Your task to perform on an android device: Open Yahoo.com Image 0: 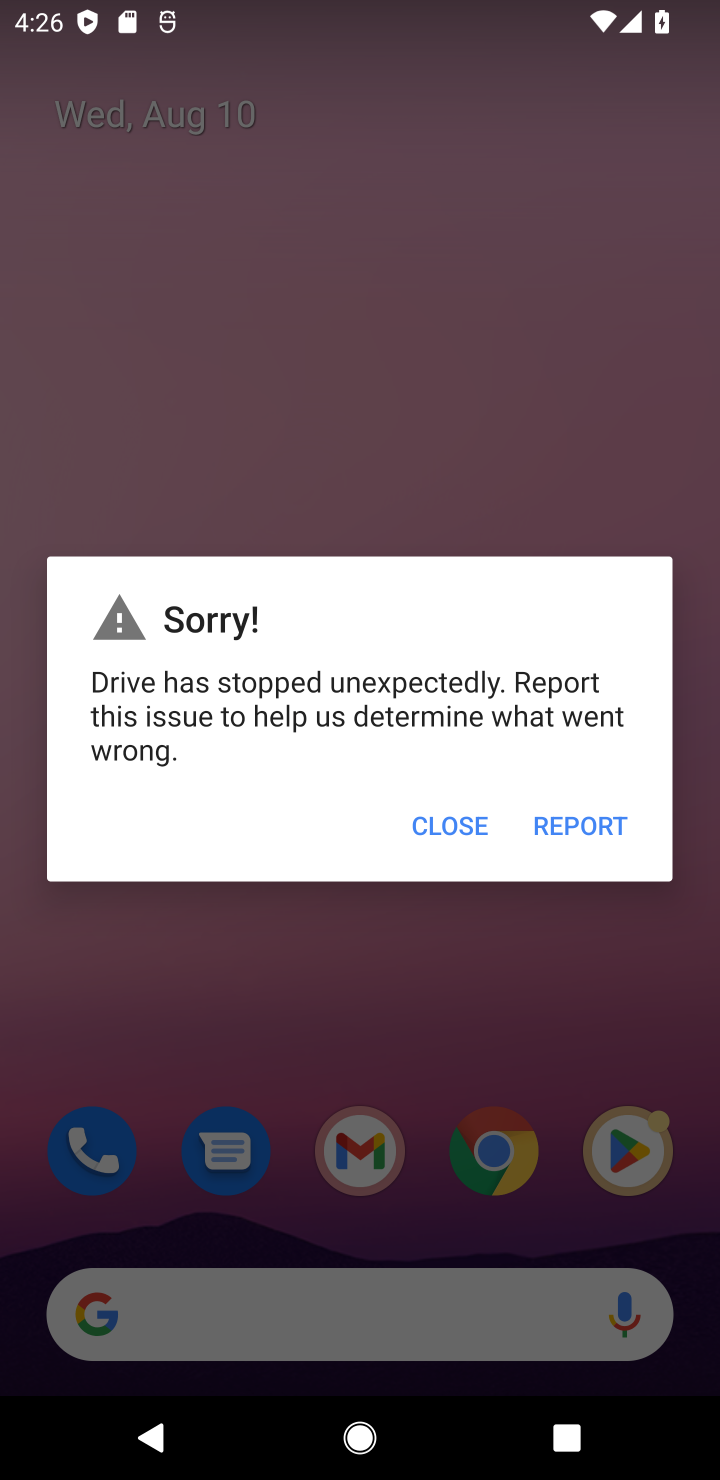
Step 0: click (462, 808)
Your task to perform on an android device: Open Yahoo.com Image 1: 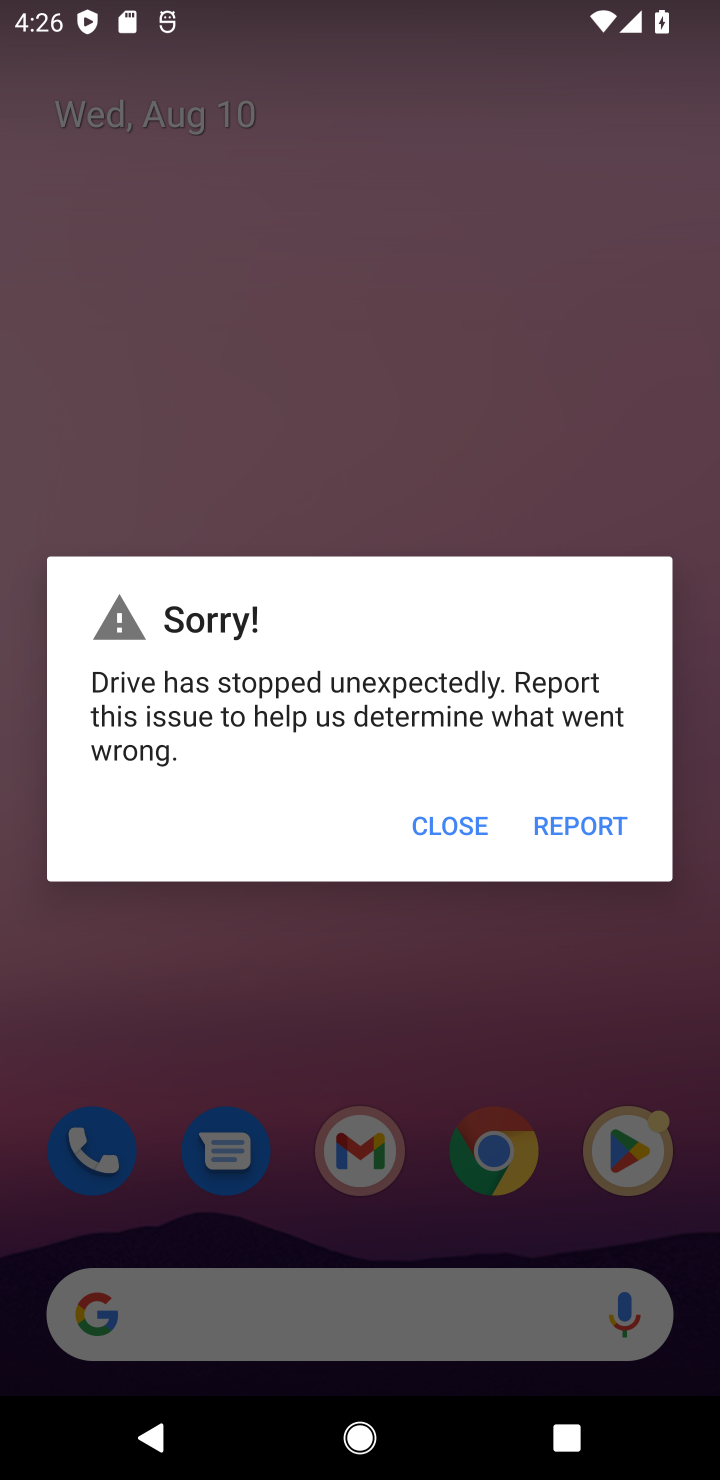
Step 1: click (462, 822)
Your task to perform on an android device: Open Yahoo.com Image 2: 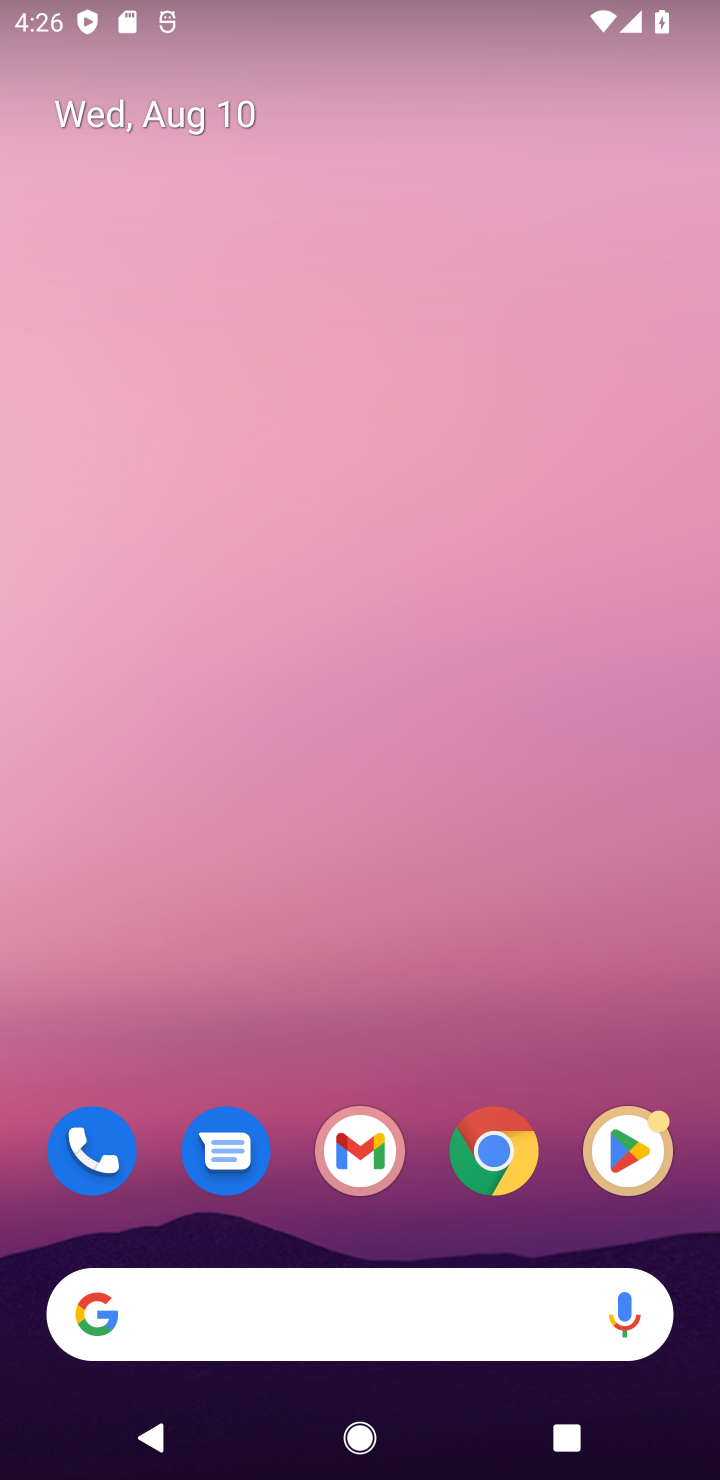
Step 2: click (415, 1322)
Your task to perform on an android device: Open Yahoo.com Image 3: 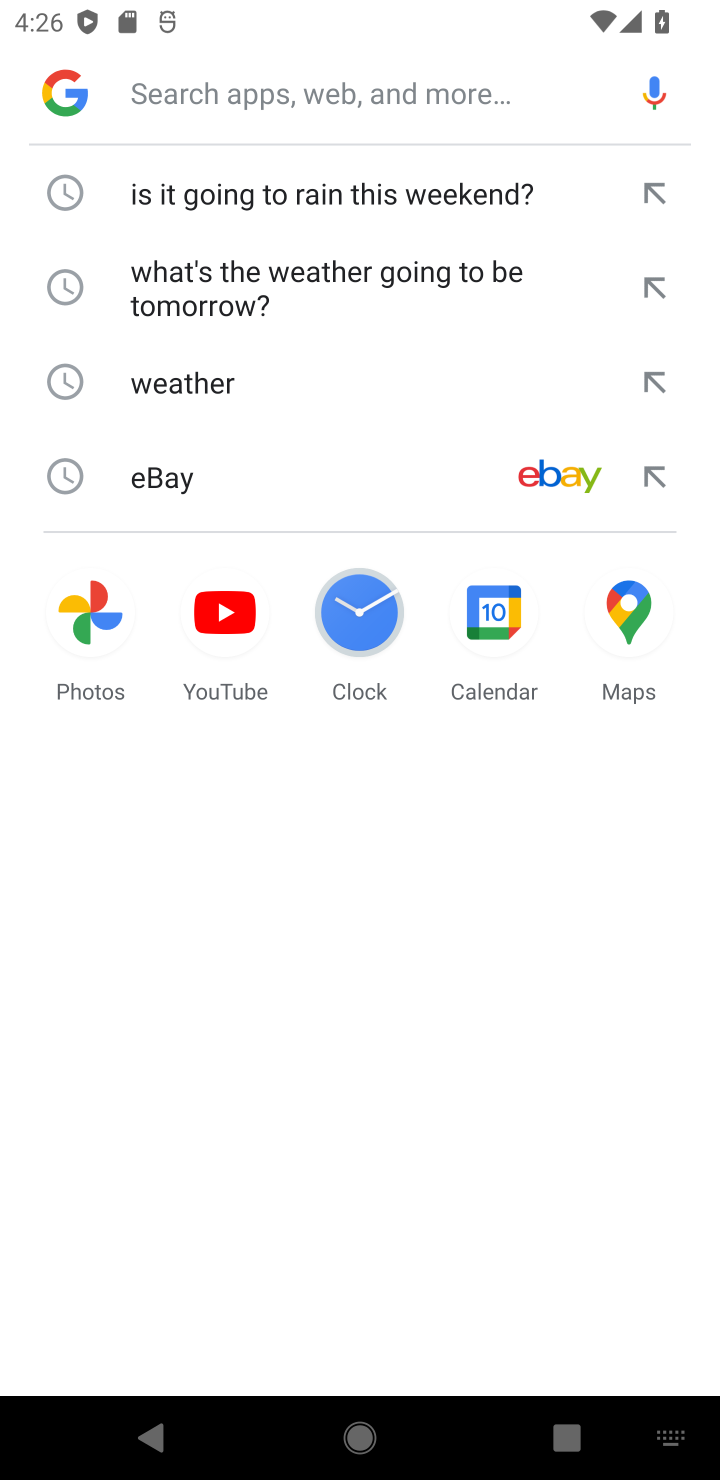
Step 3: type "Yahoo.com"
Your task to perform on an android device: Open Yahoo.com Image 4: 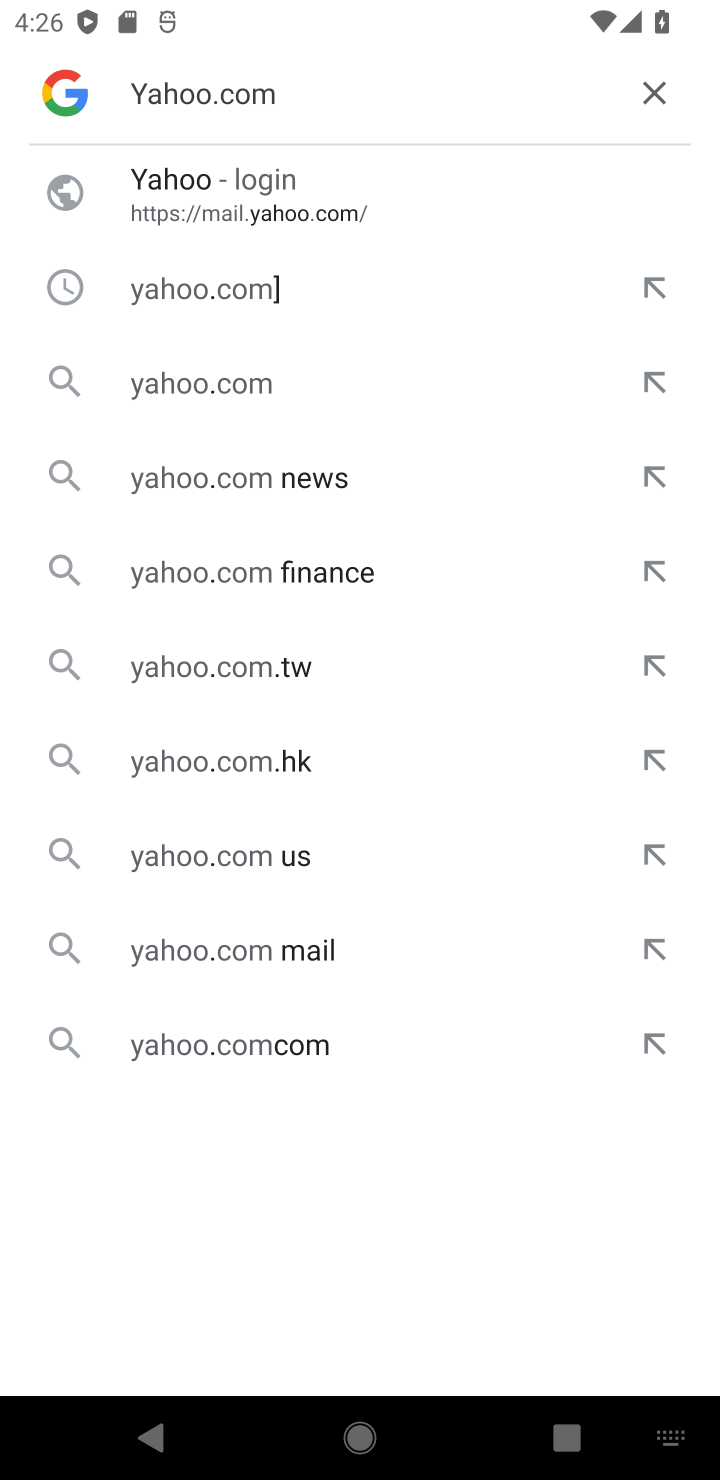
Step 4: press enter
Your task to perform on an android device: Open Yahoo.com Image 5: 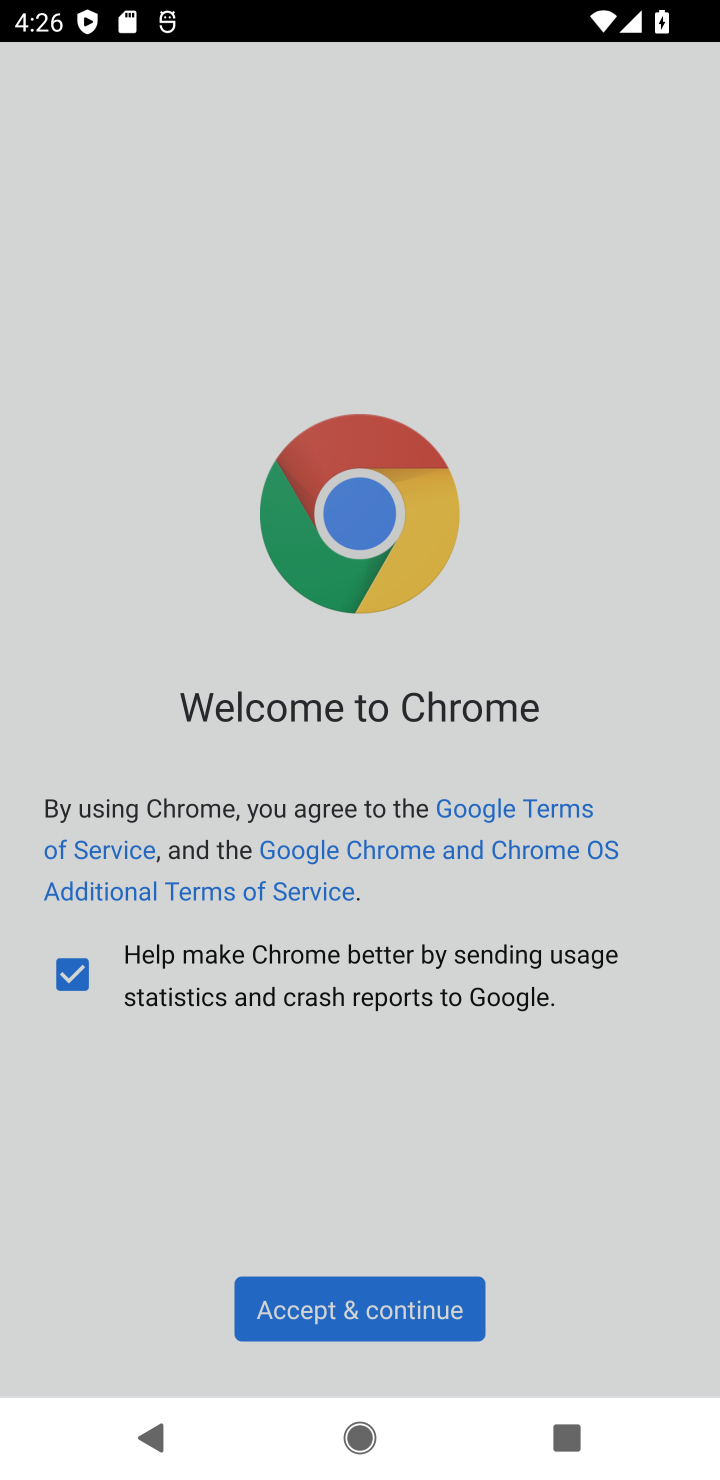
Step 5: click (364, 1326)
Your task to perform on an android device: Open Yahoo.com Image 6: 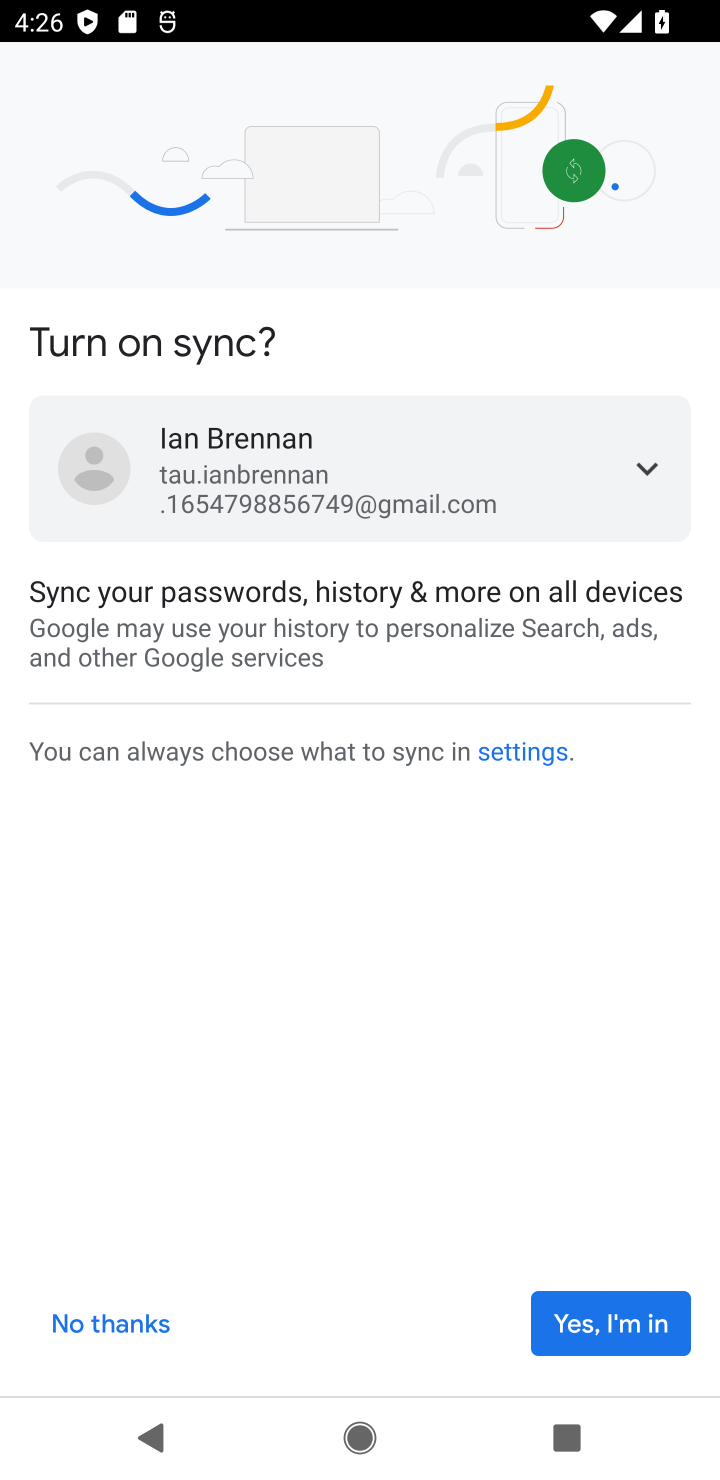
Step 6: click (115, 1329)
Your task to perform on an android device: Open Yahoo.com Image 7: 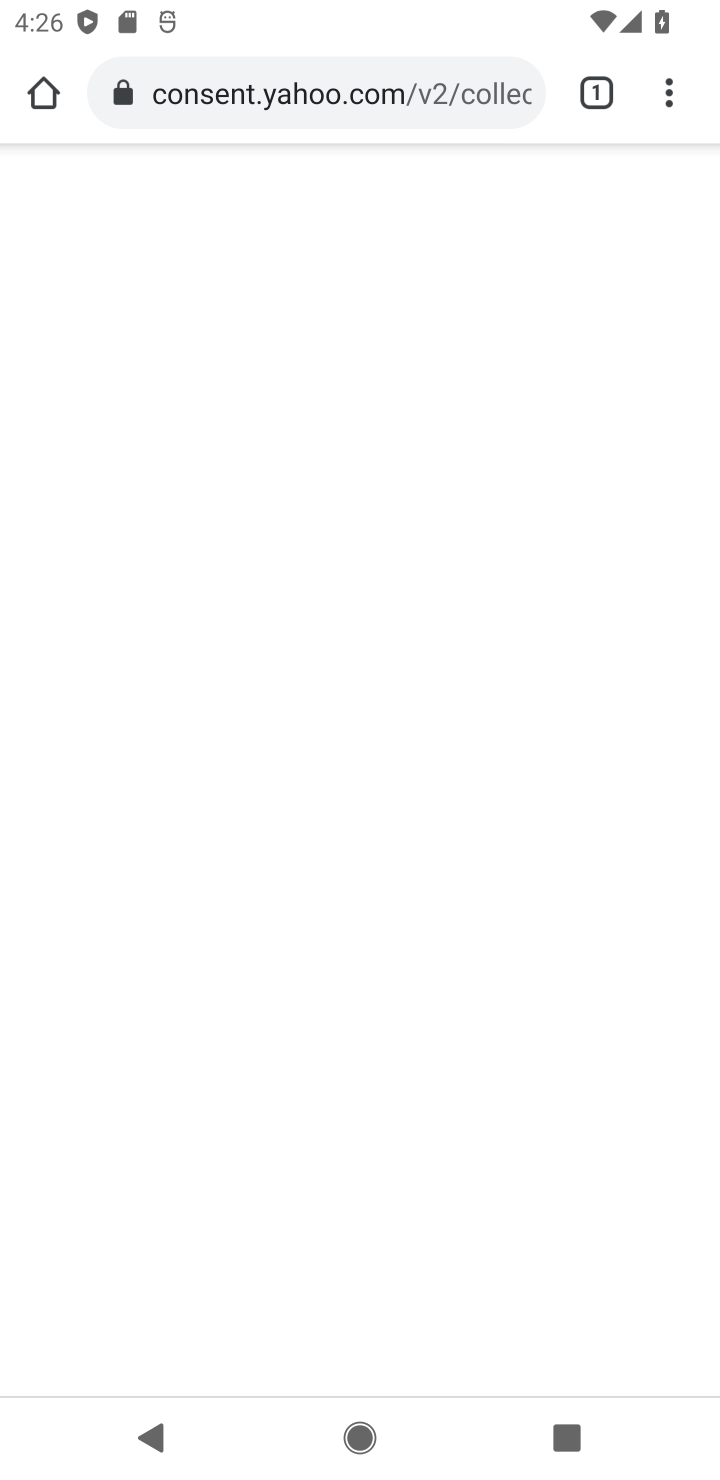
Step 7: task complete